Your task to perform on an android device: Search for "razer nari" on newegg, select the first entry, add it to the cart, then select checkout. Image 0: 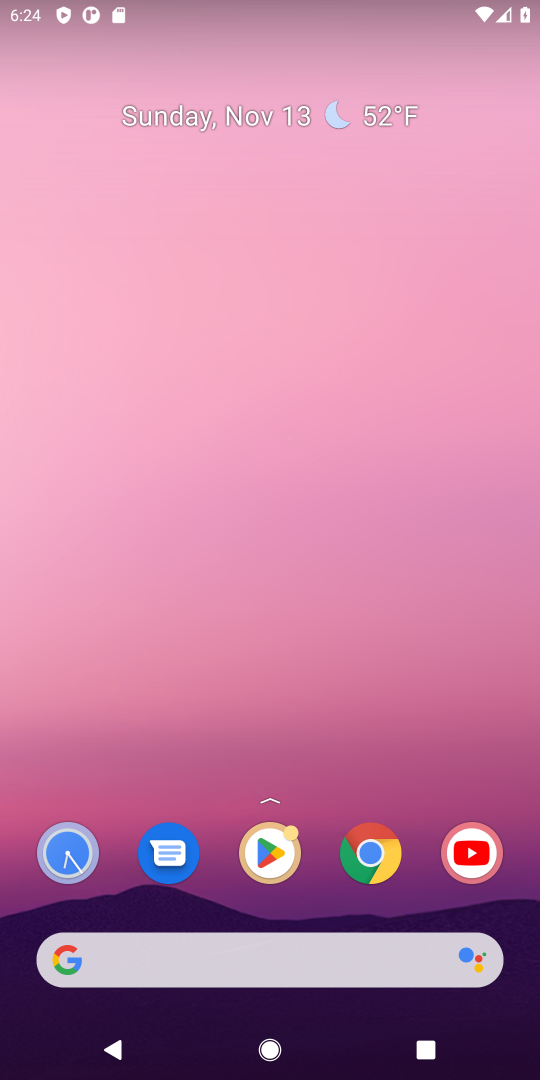
Step 0: press home button
Your task to perform on an android device: Search for "razer nari" on newegg, select the first entry, add it to the cart, then select checkout. Image 1: 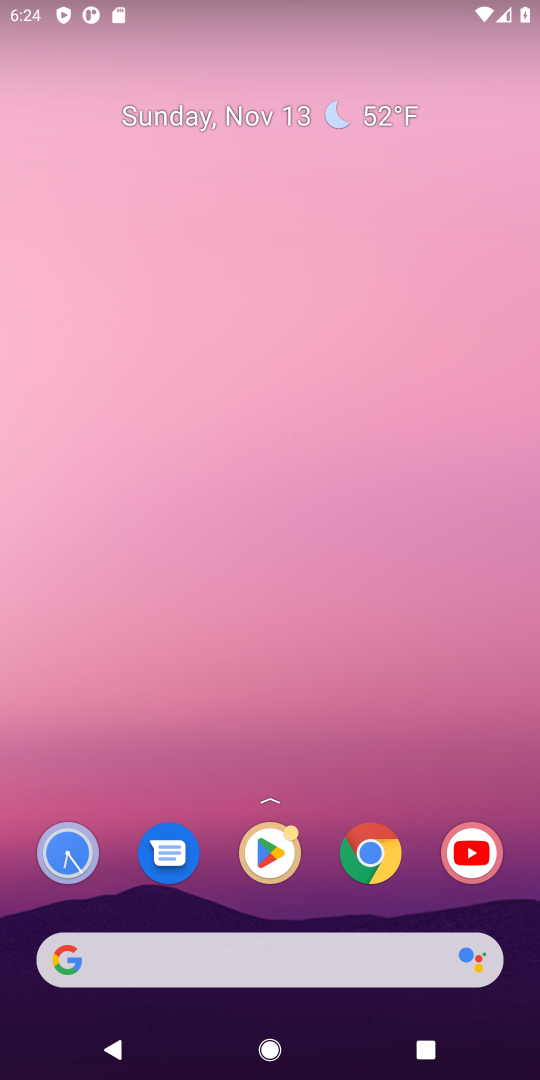
Step 1: click (107, 939)
Your task to perform on an android device: Search for "razer nari" on newegg, select the first entry, add it to the cart, then select checkout. Image 2: 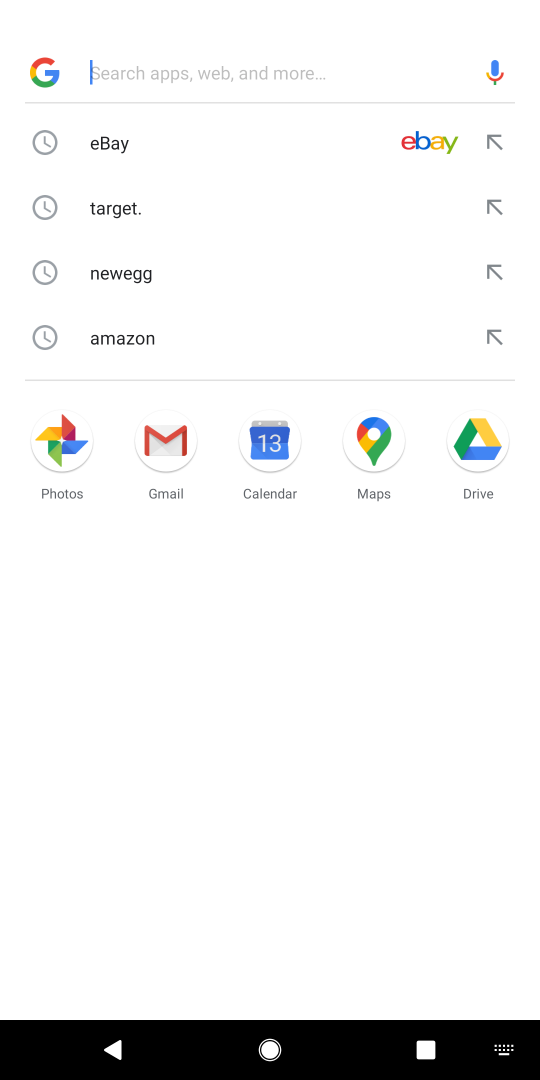
Step 2: press enter
Your task to perform on an android device: Search for "razer nari" on newegg, select the first entry, add it to the cart, then select checkout. Image 3: 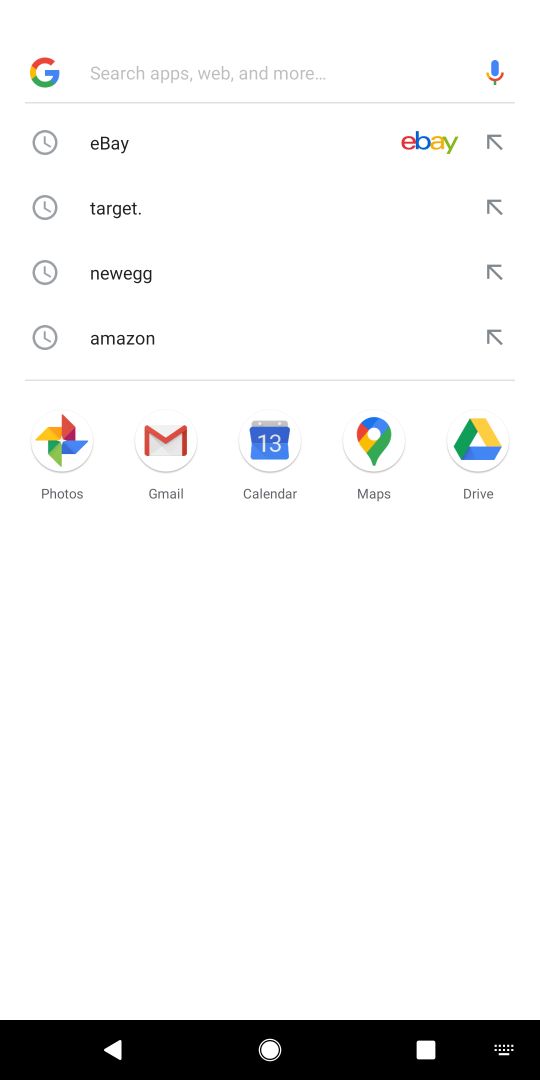
Step 3: type "newegg"
Your task to perform on an android device: Search for "razer nari" on newegg, select the first entry, add it to the cart, then select checkout. Image 4: 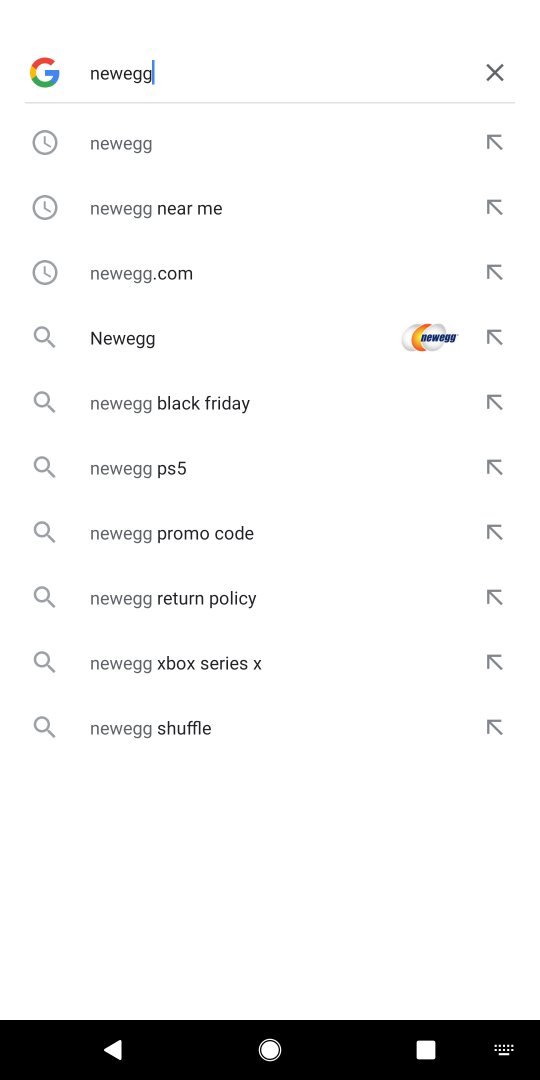
Step 4: press enter
Your task to perform on an android device: Search for "razer nari" on newegg, select the first entry, add it to the cart, then select checkout. Image 5: 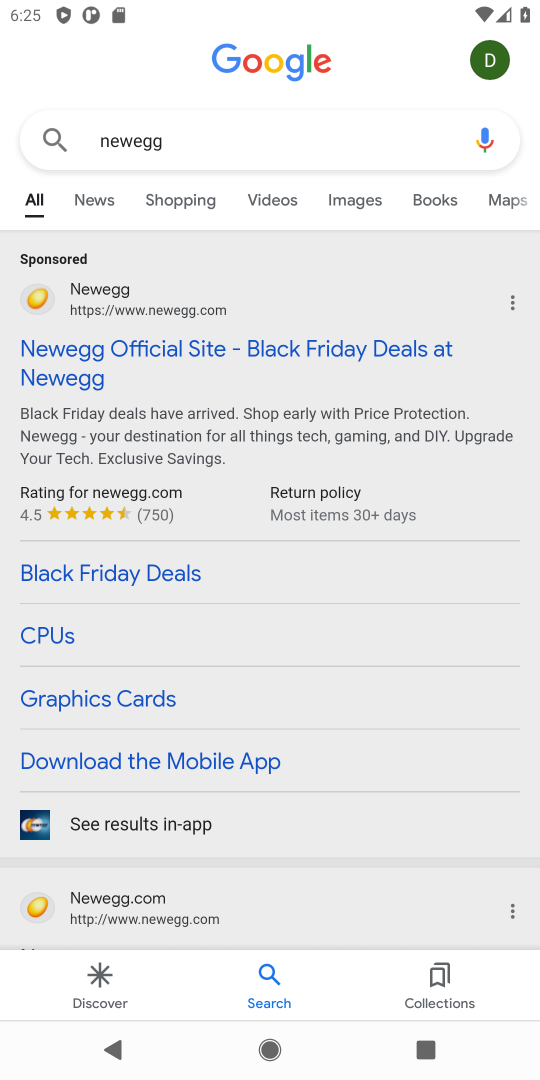
Step 5: click (110, 344)
Your task to perform on an android device: Search for "razer nari" on newegg, select the first entry, add it to the cart, then select checkout. Image 6: 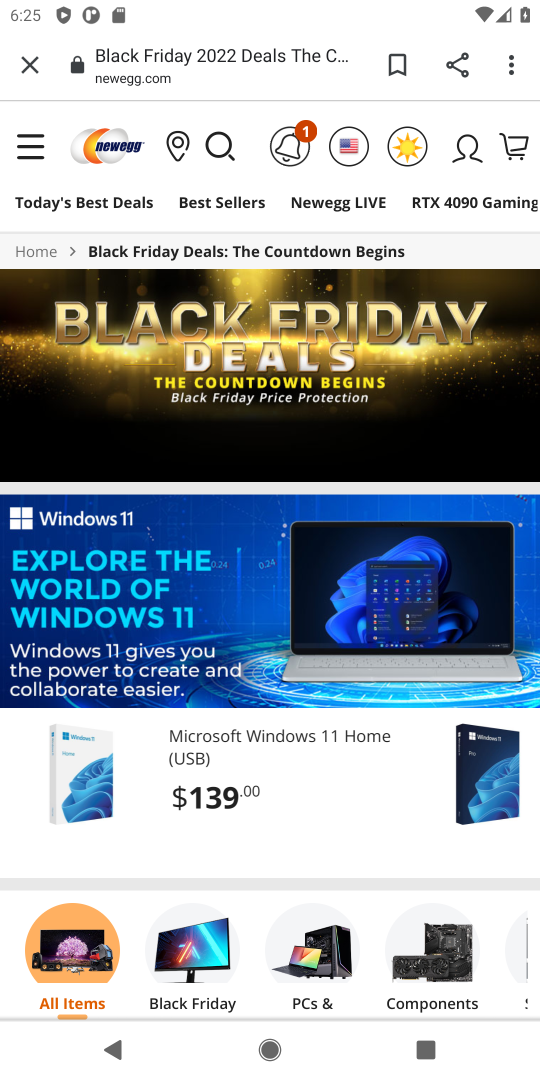
Step 6: click (219, 137)
Your task to perform on an android device: Search for "razer nari" on newegg, select the first entry, add it to the cart, then select checkout. Image 7: 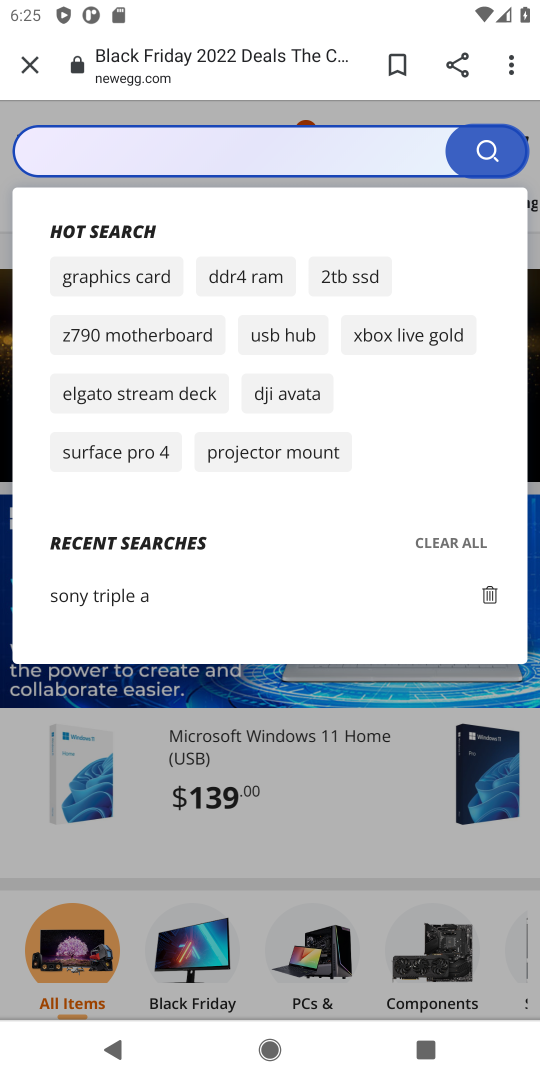
Step 7: click (94, 147)
Your task to perform on an android device: Search for "razer nari" on newegg, select the first entry, add it to the cart, then select checkout. Image 8: 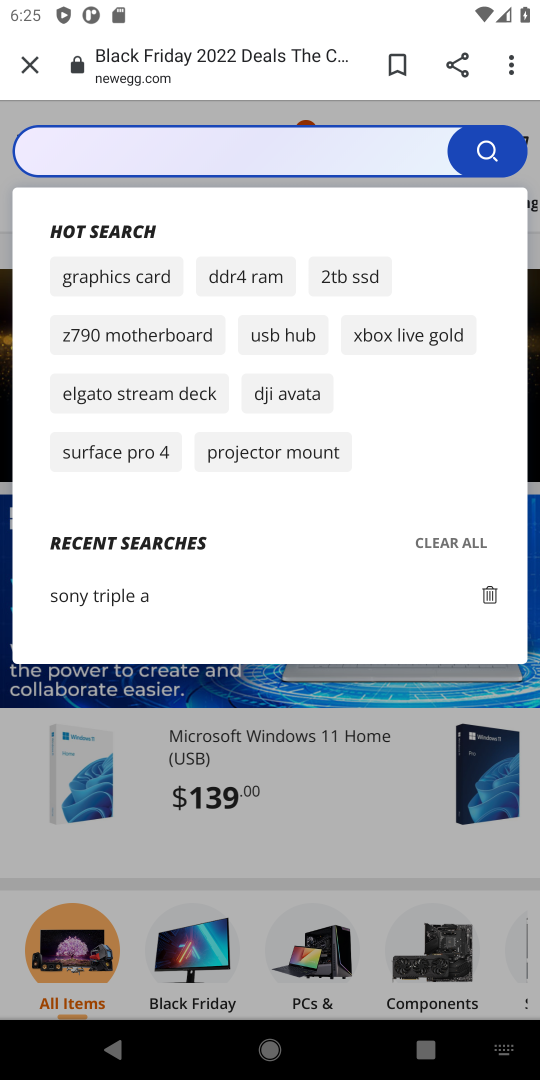
Step 8: type "razer nari"
Your task to perform on an android device: Search for "razer nari" on newegg, select the first entry, add it to the cart, then select checkout. Image 9: 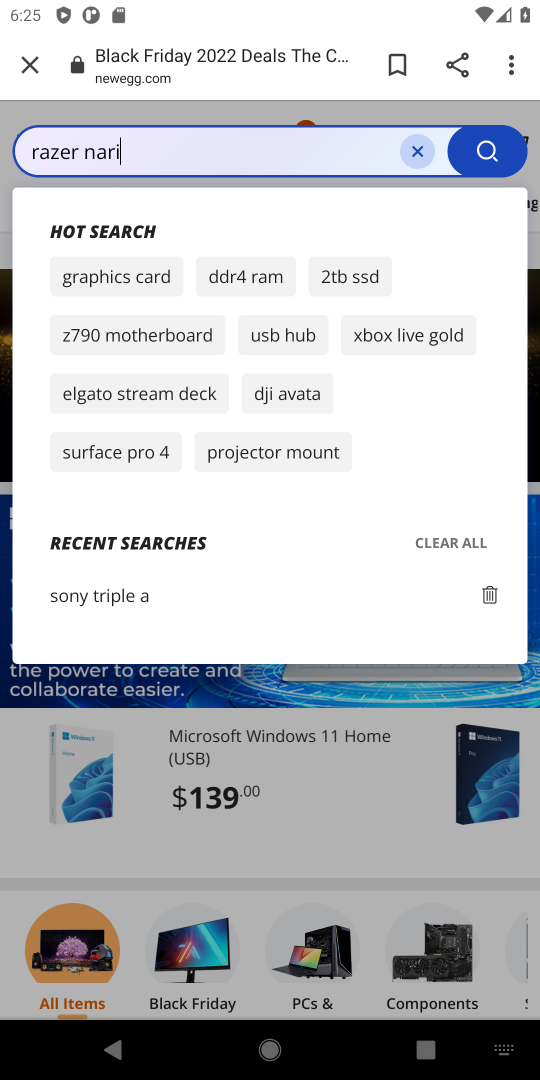
Step 9: press enter
Your task to perform on an android device: Search for "razer nari" on newegg, select the first entry, add it to the cart, then select checkout. Image 10: 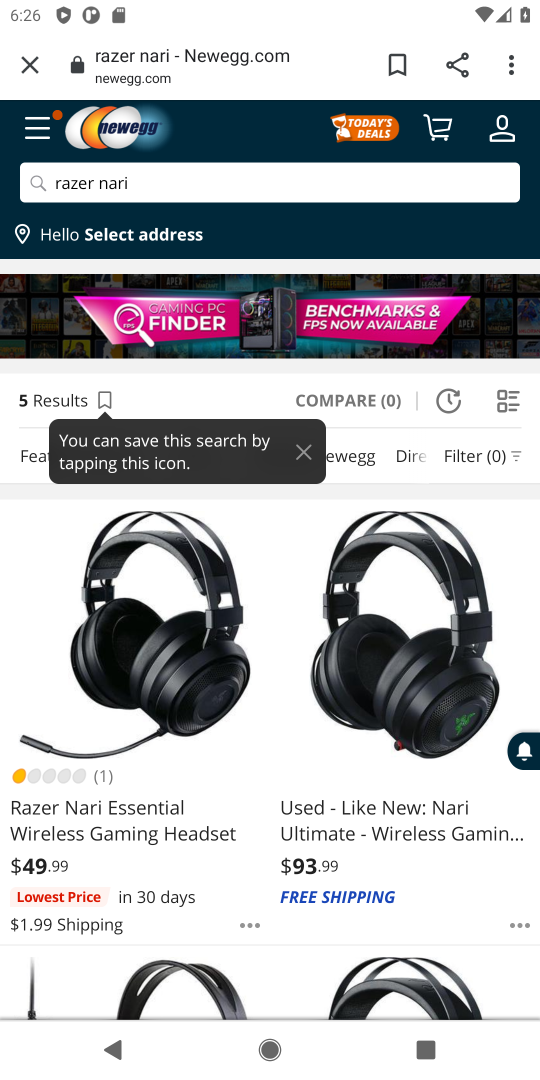
Step 10: drag from (288, 892) to (294, 619)
Your task to perform on an android device: Search for "razer nari" on newegg, select the first entry, add it to the cart, then select checkout. Image 11: 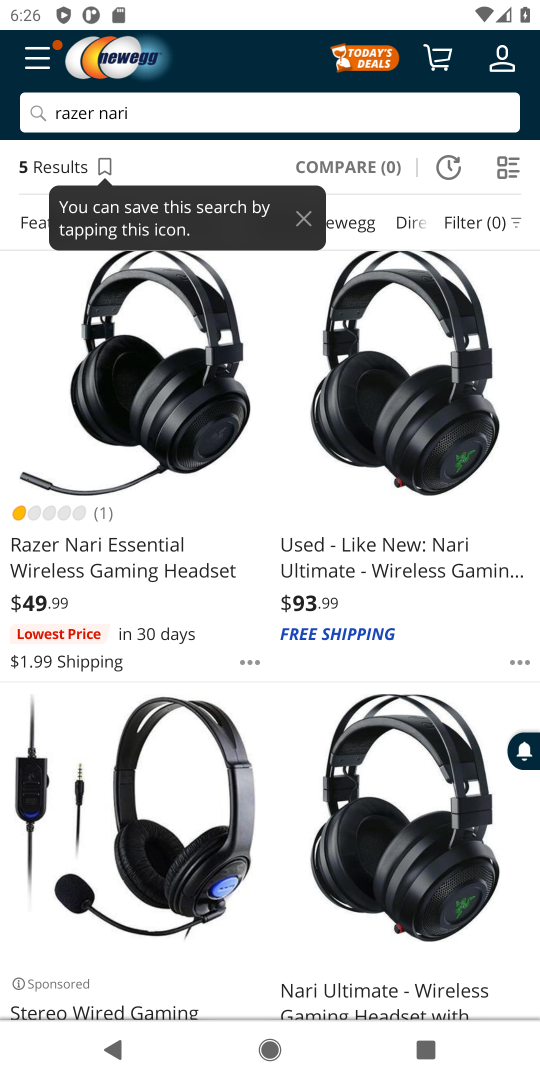
Step 11: click (92, 546)
Your task to perform on an android device: Search for "razer nari" on newegg, select the first entry, add it to the cart, then select checkout. Image 12: 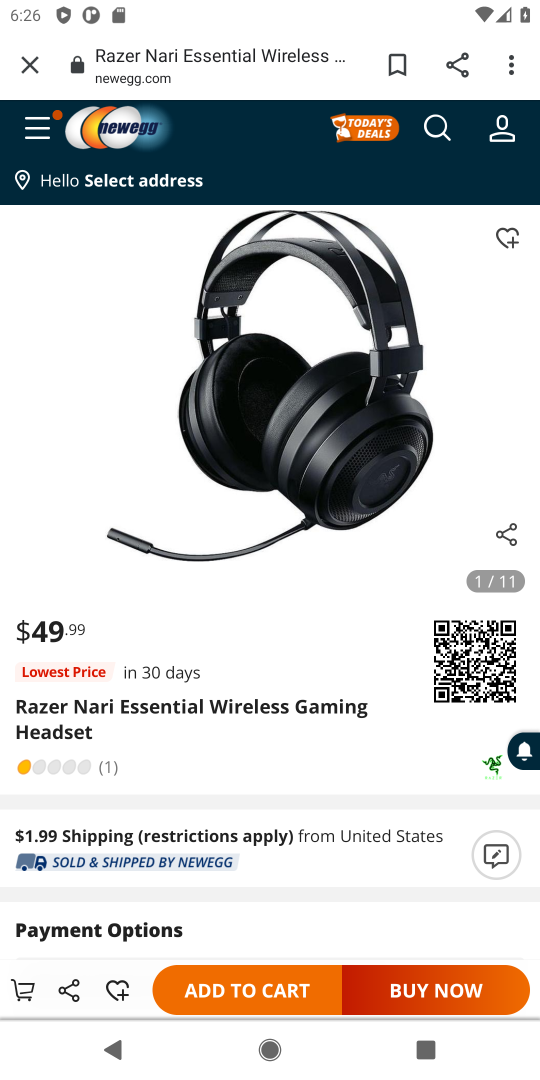
Step 12: click (243, 985)
Your task to perform on an android device: Search for "razer nari" on newegg, select the first entry, add it to the cart, then select checkout. Image 13: 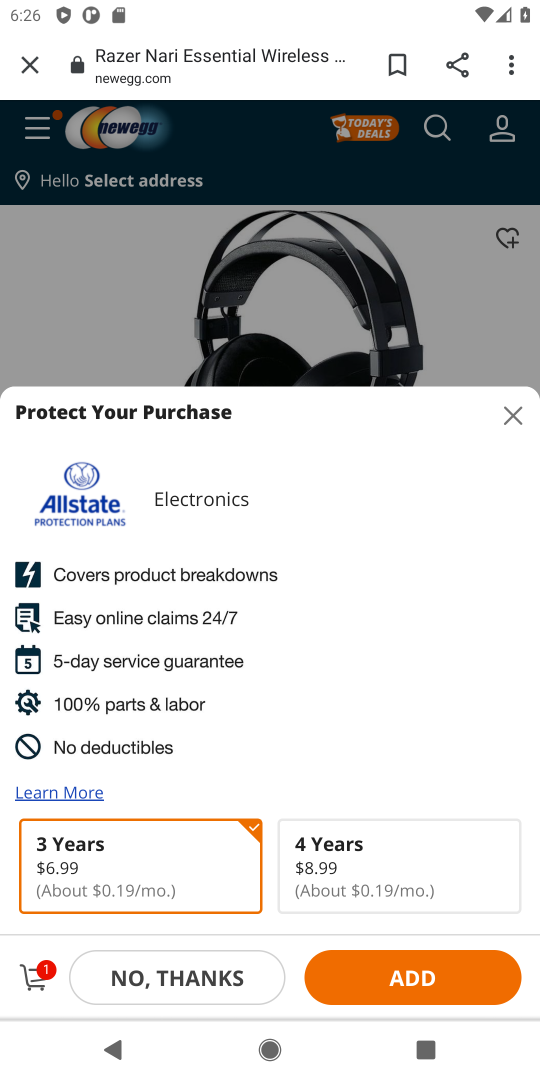
Step 13: click (161, 978)
Your task to perform on an android device: Search for "razer nari" on newegg, select the first entry, add it to the cart, then select checkout. Image 14: 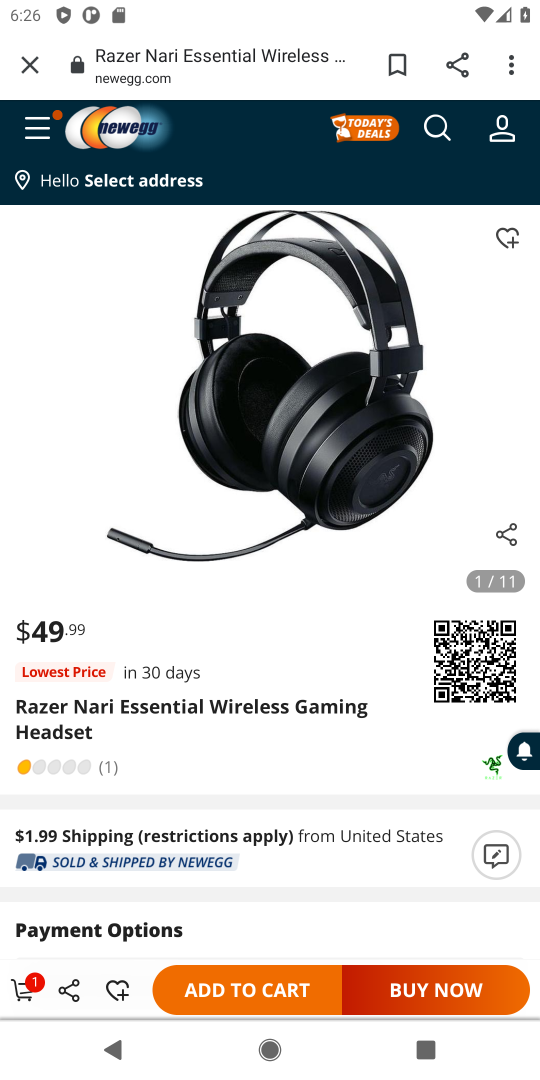
Step 14: click (24, 992)
Your task to perform on an android device: Search for "razer nari" on newegg, select the first entry, add it to the cart, then select checkout. Image 15: 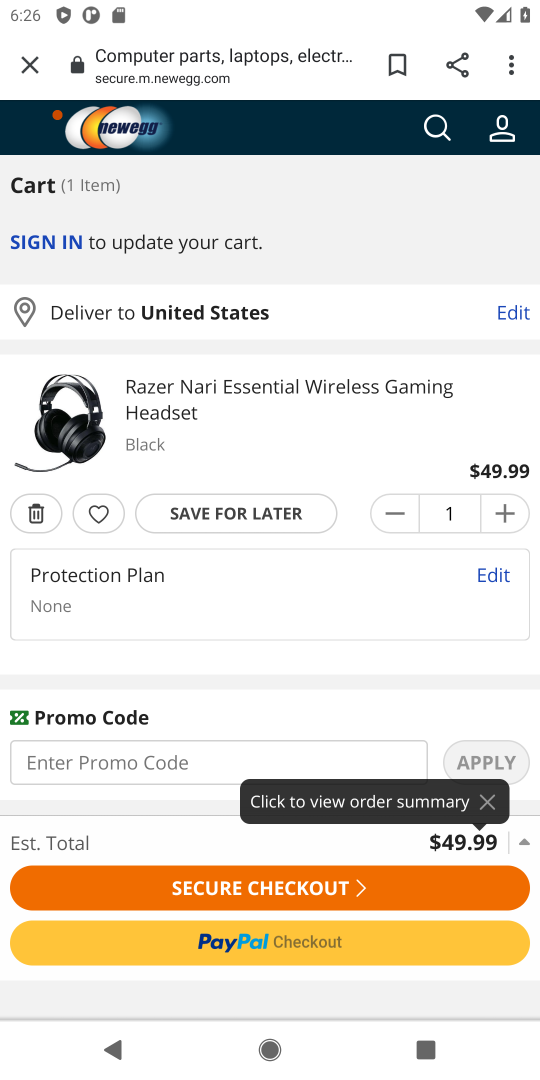
Step 15: click (262, 883)
Your task to perform on an android device: Search for "razer nari" on newegg, select the first entry, add it to the cart, then select checkout. Image 16: 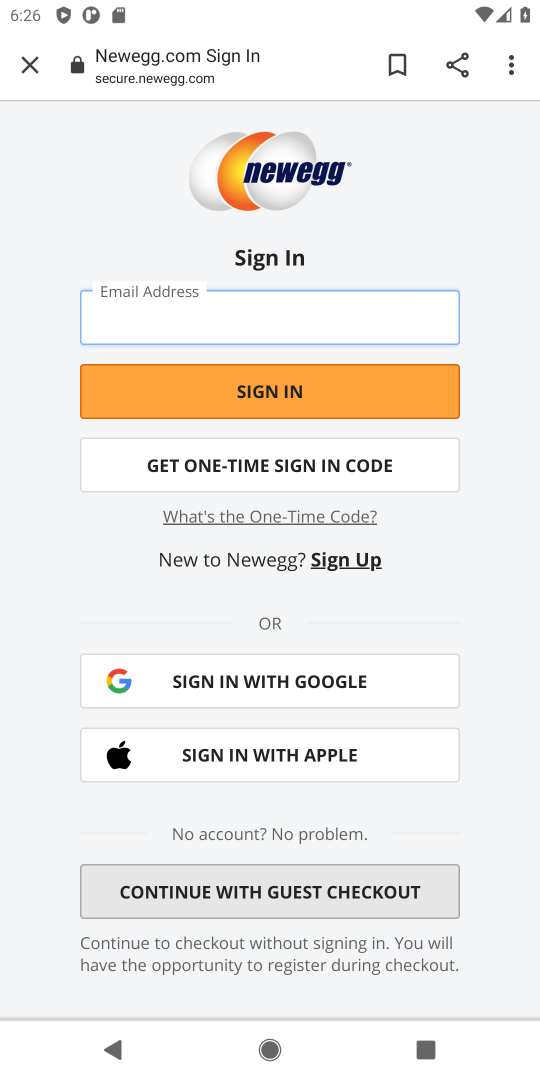
Step 16: task complete